Your task to perform on an android device: change the upload size in google photos Image 0: 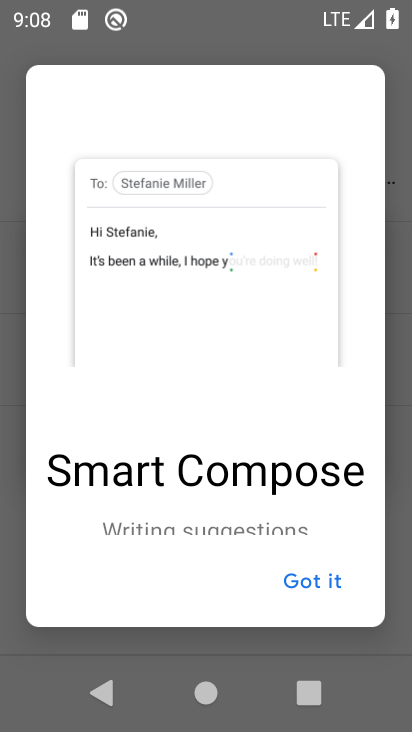
Step 0: press home button
Your task to perform on an android device: change the upload size in google photos Image 1: 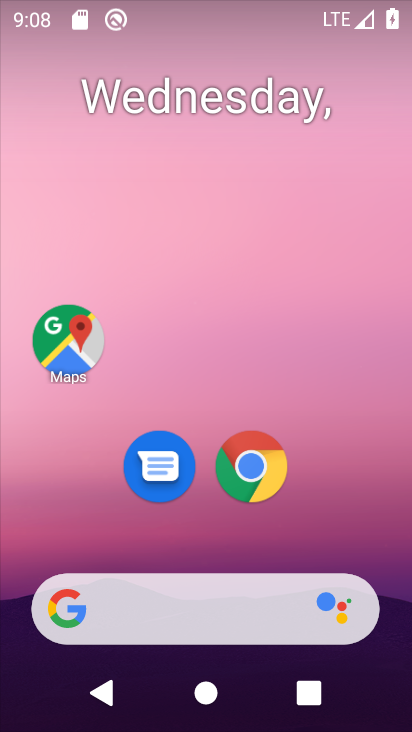
Step 1: drag from (192, 722) to (174, 219)
Your task to perform on an android device: change the upload size in google photos Image 2: 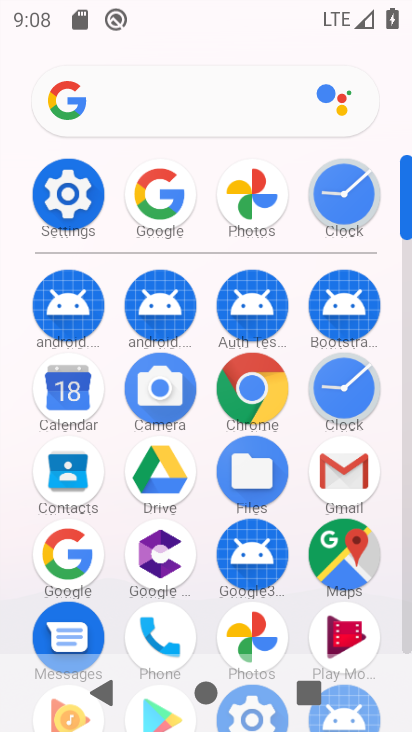
Step 2: click (246, 193)
Your task to perform on an android device: change the upload size in google photos Image 3: 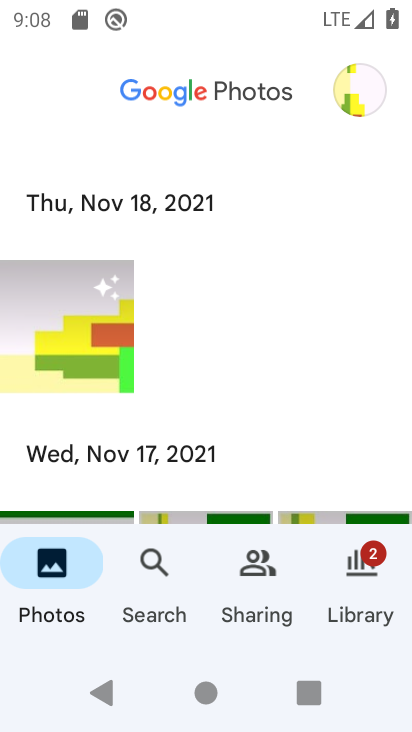
Step 3: click (358, 86)
Your task to perform on an android device: change the upload size in google photos Image 4: 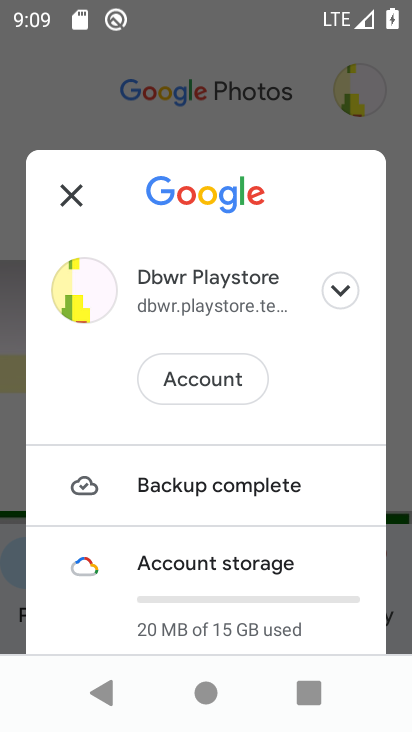
Step 4: drag from (157, 617) to (165, 240)
Your task to perform on an android device: change the upload size in google photos Image 5: 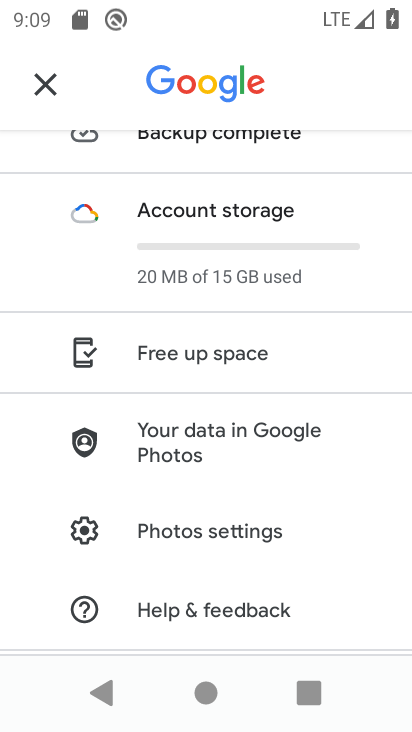
Step 5: drag from (165, 608) to (175, 247)
Your task to perform on an android device: change the upload size in google photos Image 6: 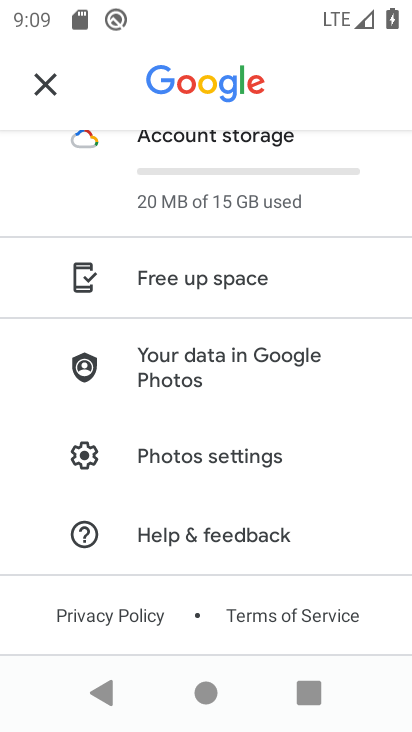
Step 6: click (176, 454)
Your task to perform on an android device: change the upload size in google photos Image 7: 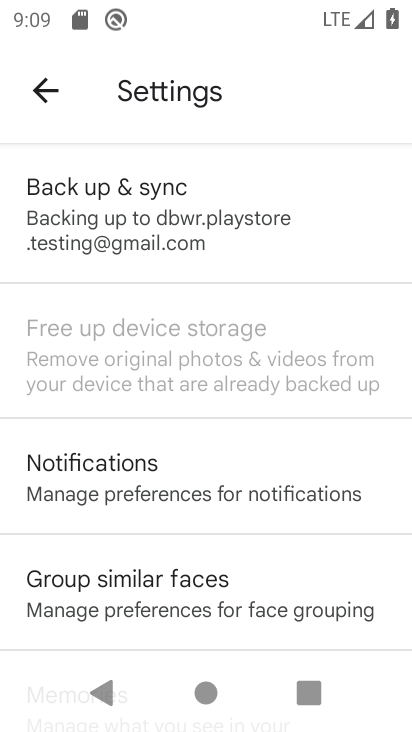
Step 7: click (110, 216)
Your task to perform on an android device: change the upload size in google photos Image 8: 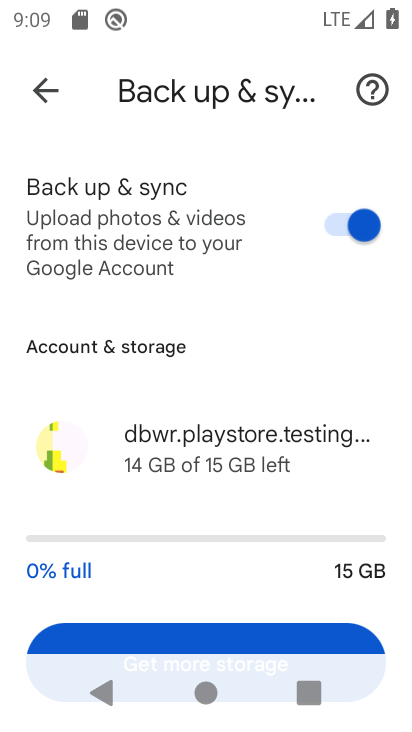
Step 8: drag from (162, 575) to (164, 175)
Your task to perform on an android device: change the upload size in google photos Image 9: 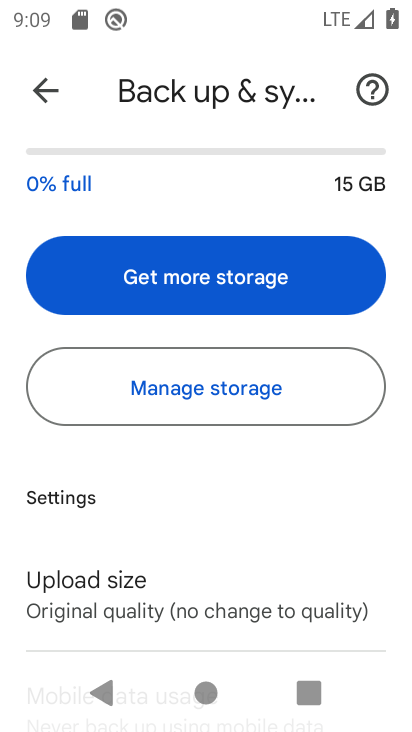
Step 9: click (150, 597)
Your task to perform on an android device: change the upload size in google photos Image 10: 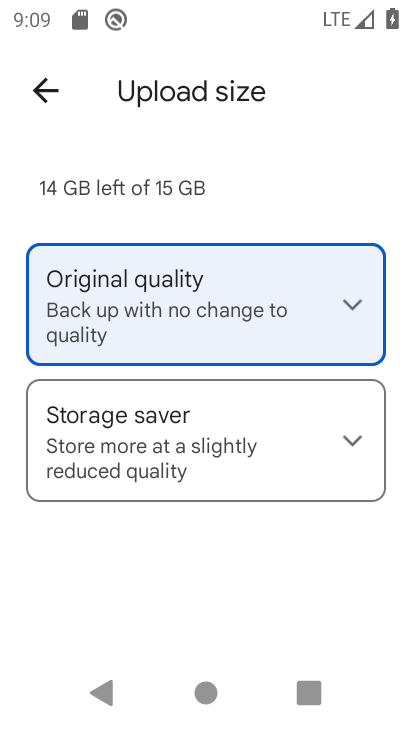
Step 10: click (56, 410)
Your task to perform on an android device: change the upload size in google photos Image 11: 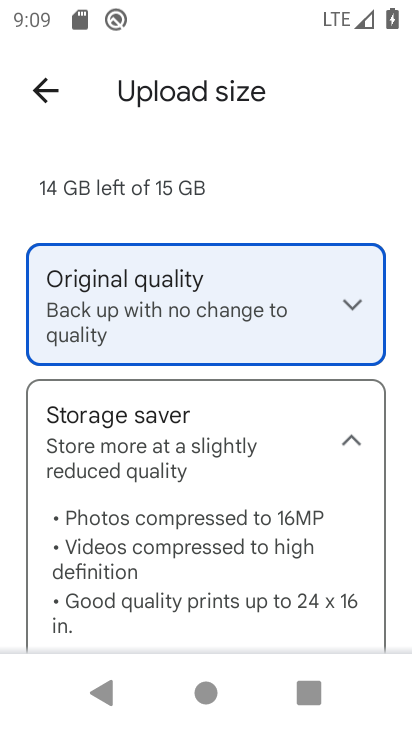
Step 11: click (32, 523)
Your task to perform on an android device: change the upload size in google photos Image 12: 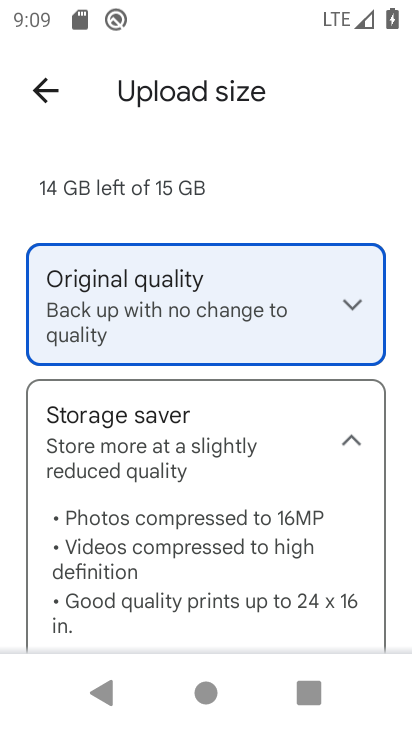
Step 12: click (59, 523)
Your task to perform on an android device: change the upload size in google photos Image 13: 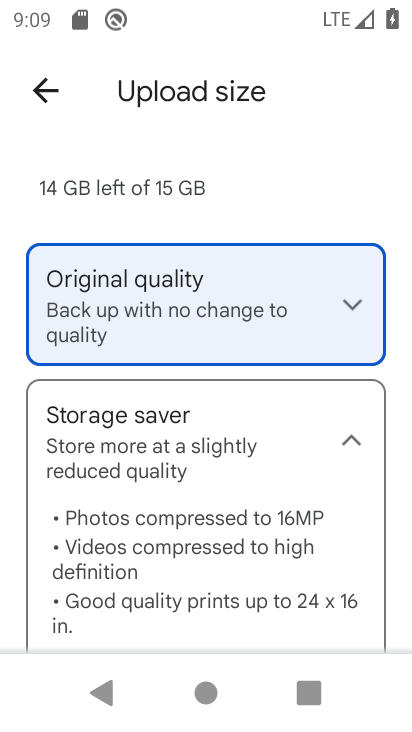
Step 13: click (59, 523)
Your task to perform on an android device: change the upload size in google photos Image 14: 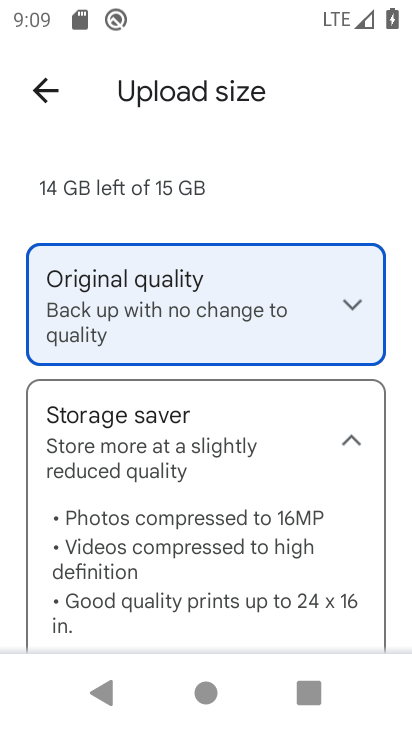
Step 14: click (40, 510)
Your task to perform on an android device: change the upload size in google photos Image 15: 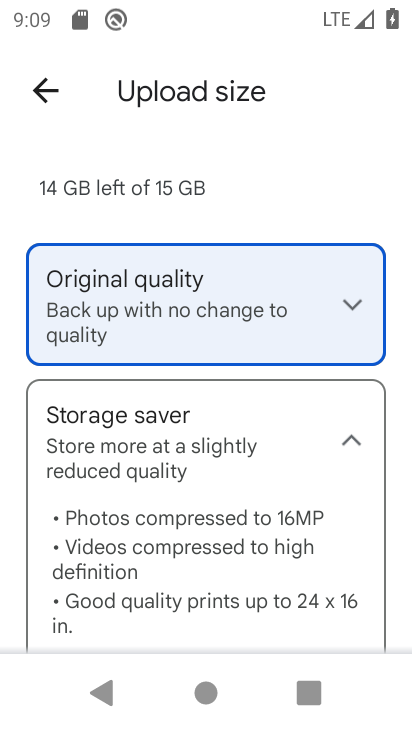
Step 15: click (41, 509)
Your task to perform on an android device: change the upload size in google photos Image 16: 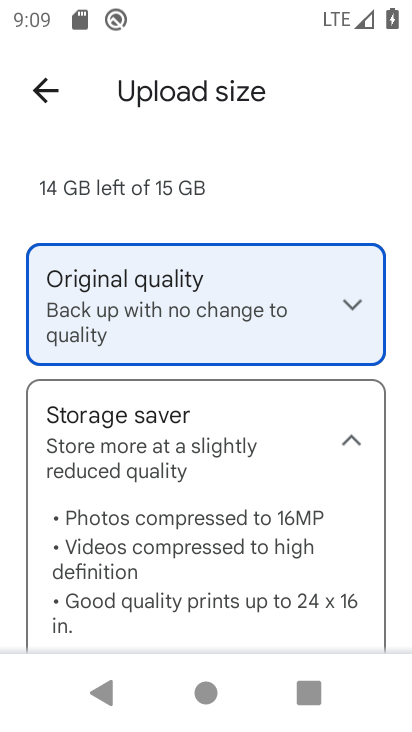
Step 16: drag from (283, 295) to (282, 550)
Your task to perform on an android device: change the upload size in google photos Image 17: 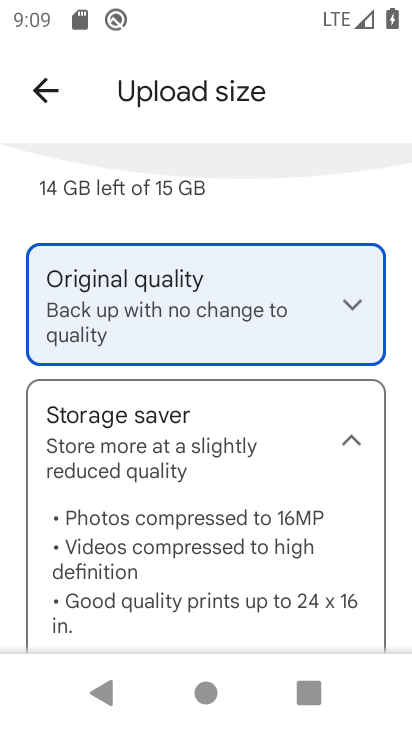
Step 17: drag from (273, 600) to (274, 185)
Your task to perform on an android device: change the upload size in google photos Image 18: 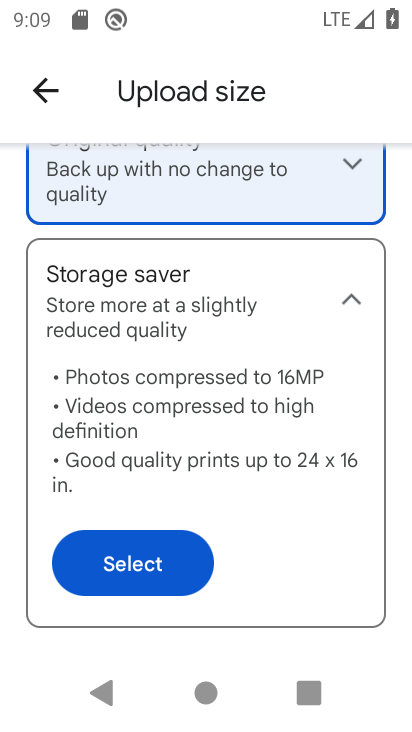
Step 18: click (135, 566)
Your task to perform on an android device: change the upload size in google photos Image 19: 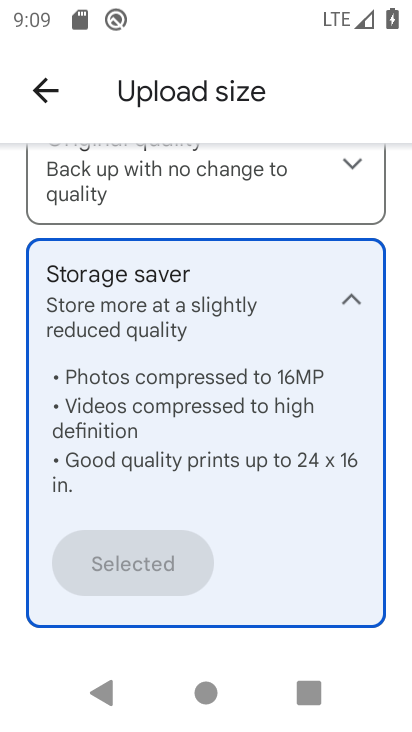
Step 19: task complete